Your task to perform on an android device: open a new tab in the chrome app Image 0: 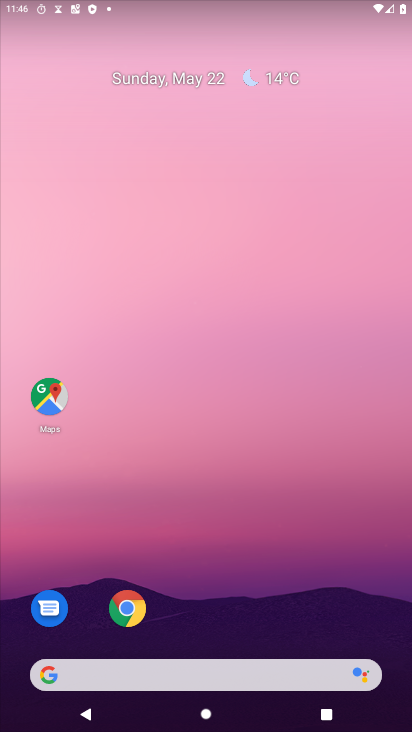
Step 0: click (132, 603)
Your task to perform on an android device: open a new tab in the chrome app Image 1: 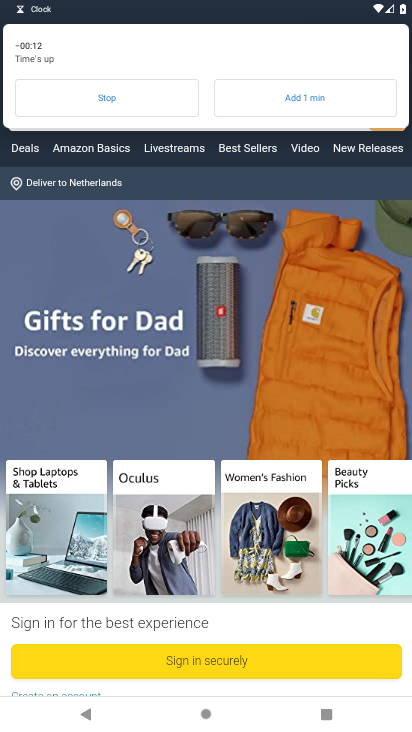
Step 1: click (118, 95)
Your task to perform on an android device: open a new tab in the chrome app Image 2: 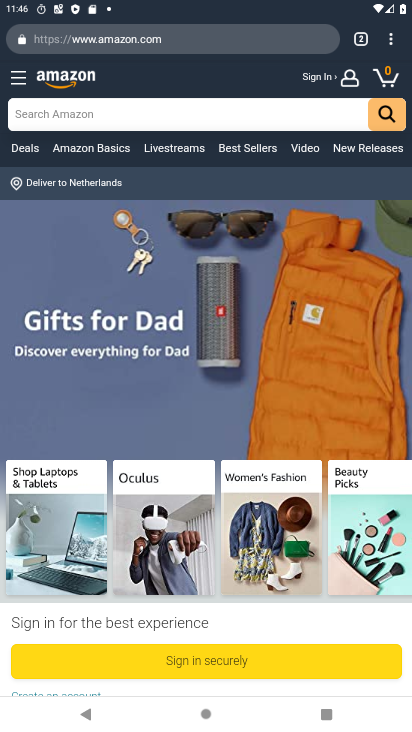
Step 2: click (391, 43)
Your task to perform on an android device: open a new tab in the chrome app Image 3: 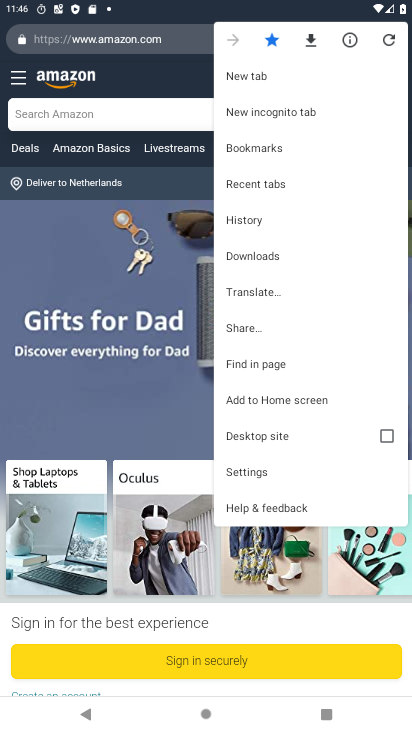
Step 3: click (246, 77)
Your task to perform on an android device: open a new tab in the chrome app Image 4: 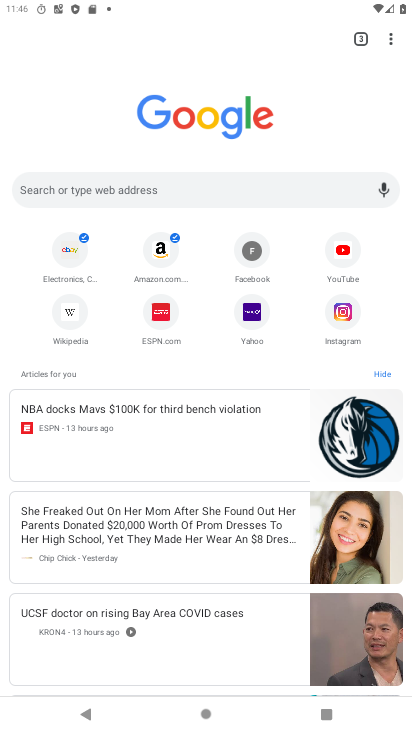
Step 4: task complete